Your task to perform on an android device: Open maps Image 0: 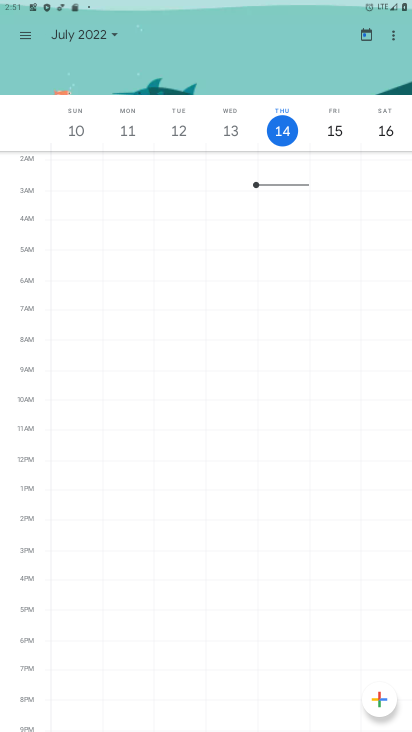
Step 0: press home button
Your task to perform on an android device: Open maps Image 1: 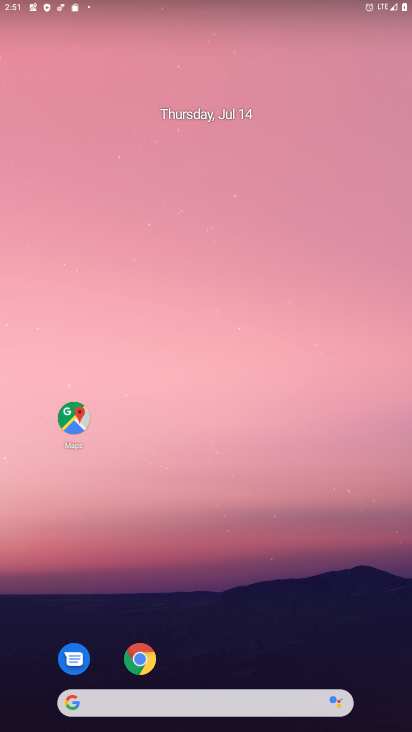
Step 1: drag from (288, 624) to (209, 31)
Your task to perform on an android device: Open maps Image 2: 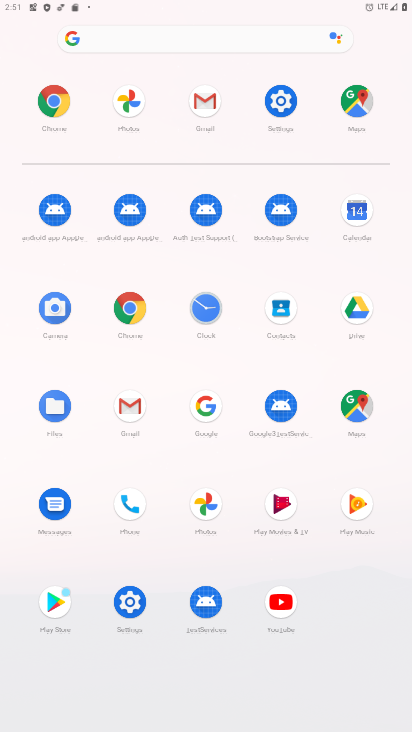
Step 2: click (358, 395)
Your task to perform on an android device: Open maps Image 3: 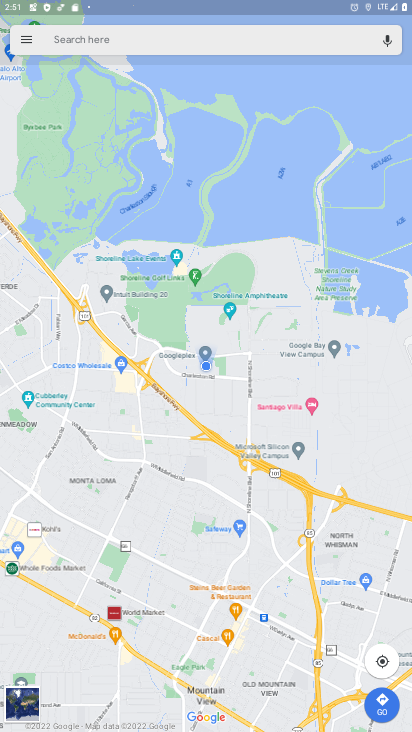
Step 3: task complete